Your task to perform on an android device: check battery use Image 0: 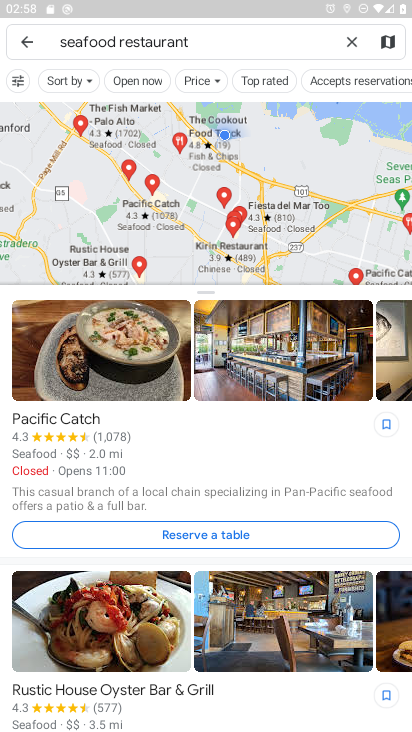
Step 0: press home button
Your task to perform on an android device: check battery use Image 1: 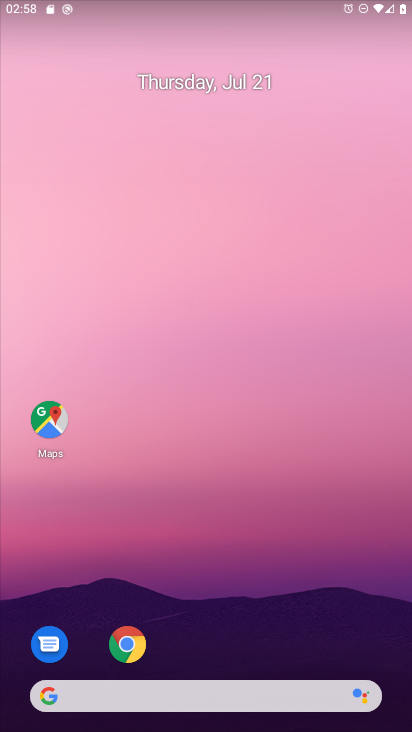
Step 1: drag from (223, 697) to (280, 286)
Your task to perform on an android device: check battery use Image 2: 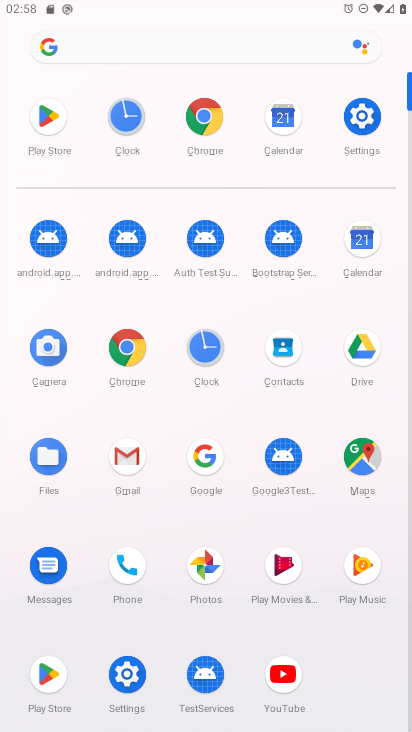
Step 2: click (362, 118)
Your task to perform on an android device: check battery use Image 3: 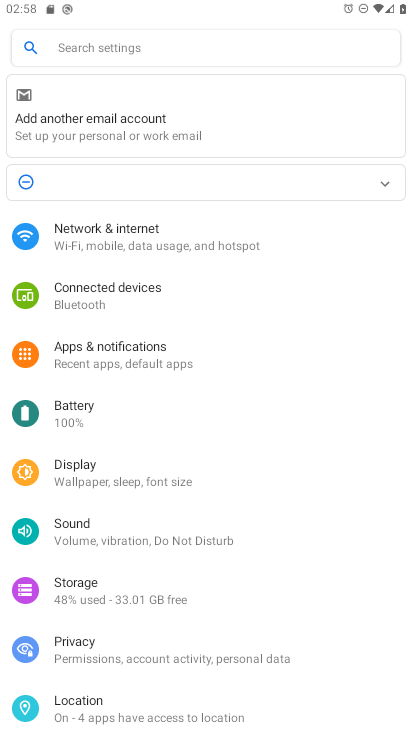
Step 3: click (90, 422)
Your task to perform on an android device: check battery use Image 4: 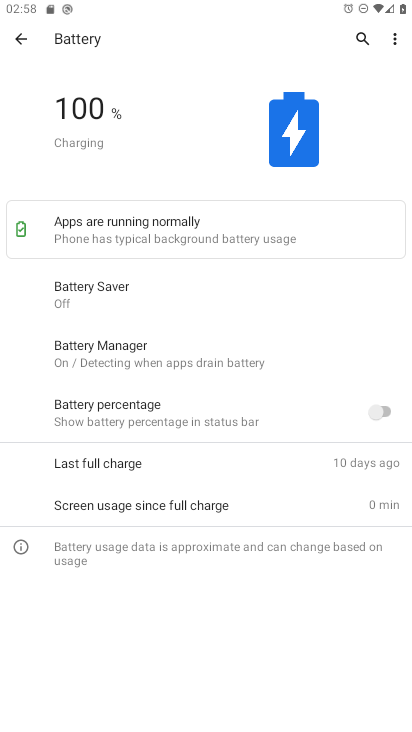
Step 4: click (398, 43)
Your task to perform on an android device: check battery use Image 5: 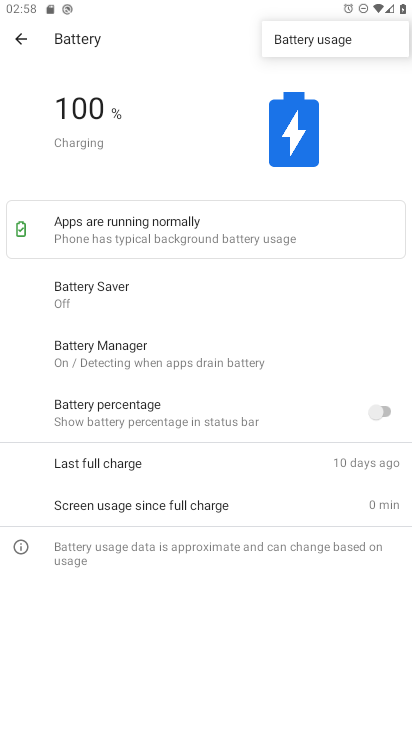
Step 5: click (310, 39)
Your task to perform on an android device: check battery use Image 6: 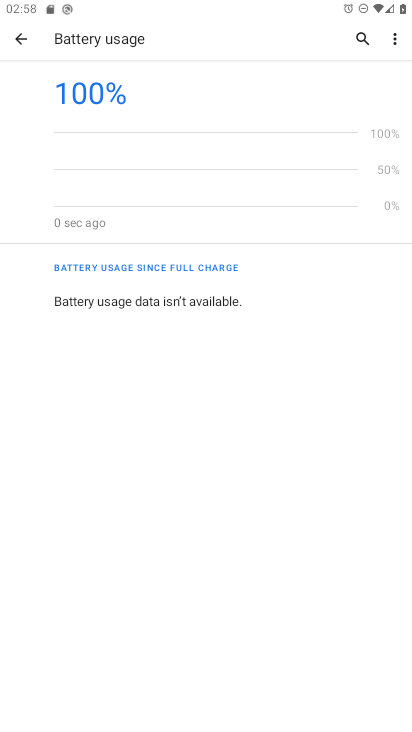
Step 6: task complete